Your task to perform on an android device: toggle airplane mode Image 0: 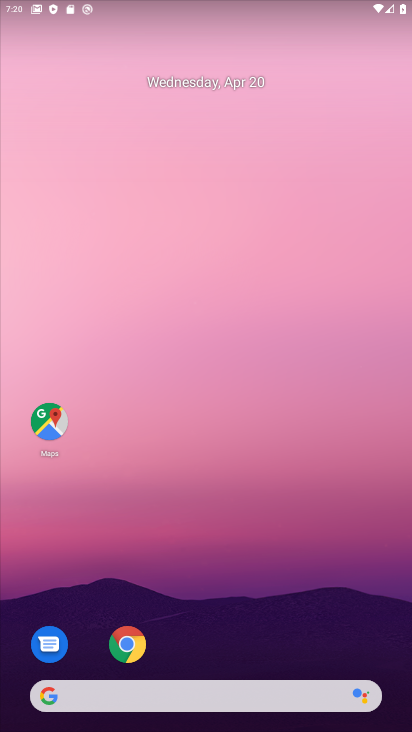
Step 0: drag from (332, 620) to (236, 111)
Your task to perform on an android device: toggle airplane mode Image 1: 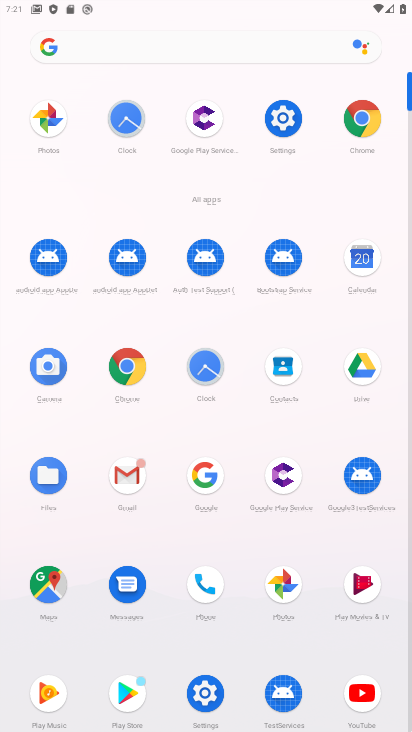
Step 1: press back button
Your task to perform on an android device: toggle airplane mode Image 2: 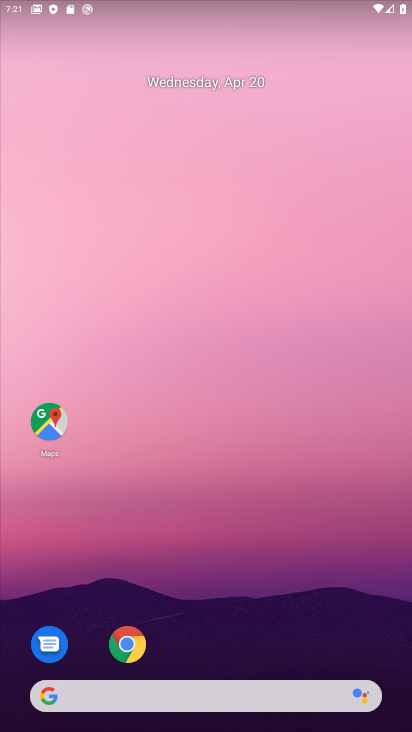
Step 2: drag from (268, 5) to (271, 438)
Your task to perform on an android device: toggle airplane mode Image 3: 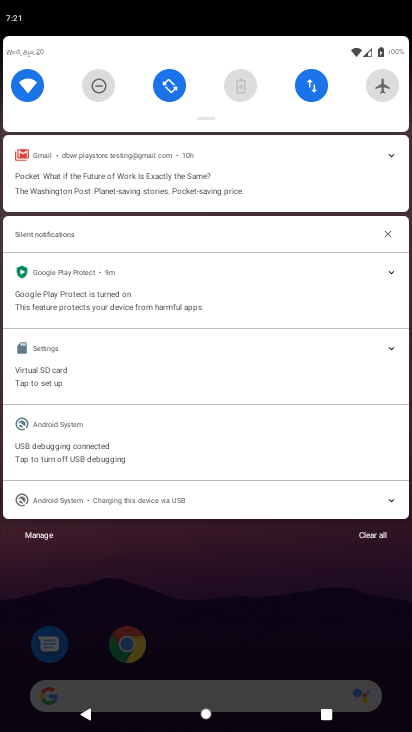
Step 3: drag from (201, 104) to (224, 443)
Your task to perform on an android device: toggle airplane mode Image 4: 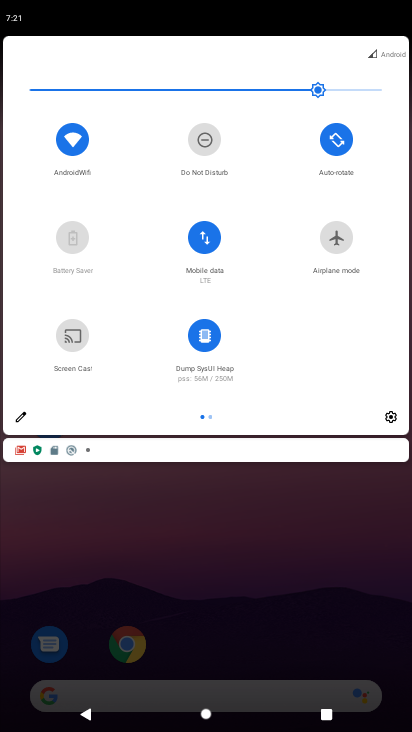
Step 4: click (340, 238)
Your task to perform on an android device: toggle airplane mode Image 5: 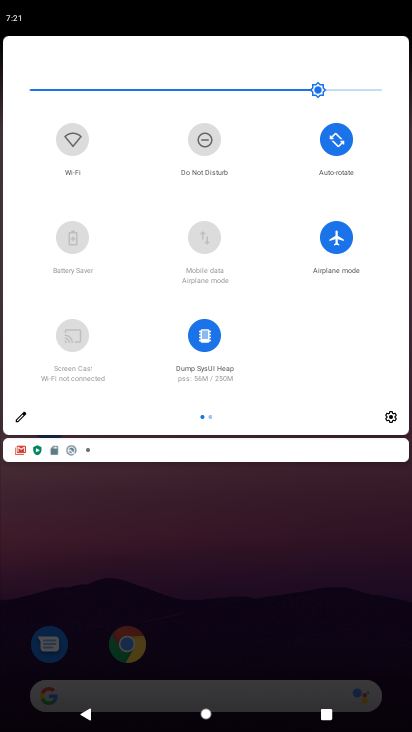
Step 5: task complete